Your task to perform on an android device: Open notification settings Image 0: 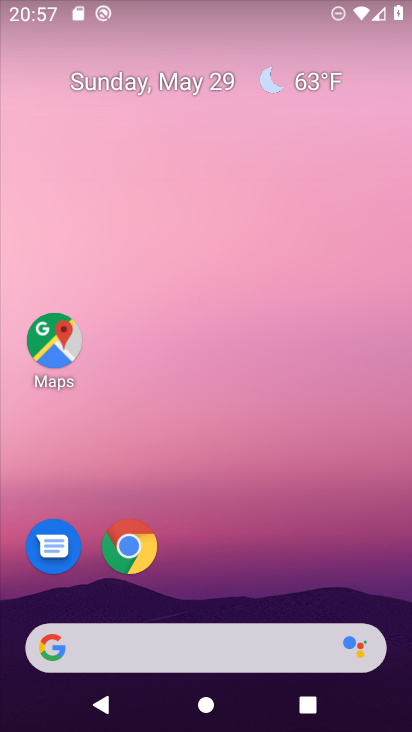
Step 0: drag from (153, 654) to (303, 89)
Your task to perform on an android device: Open notification settings Image 1: 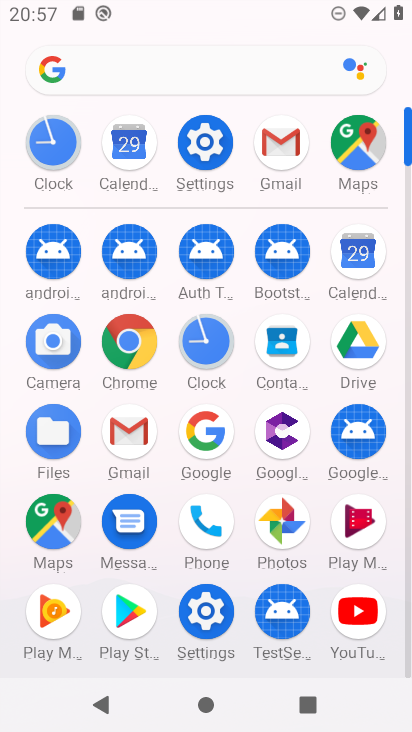
Step 1: click (204, 145)
Your task to perform on an android device: Open notification settings Image 2: 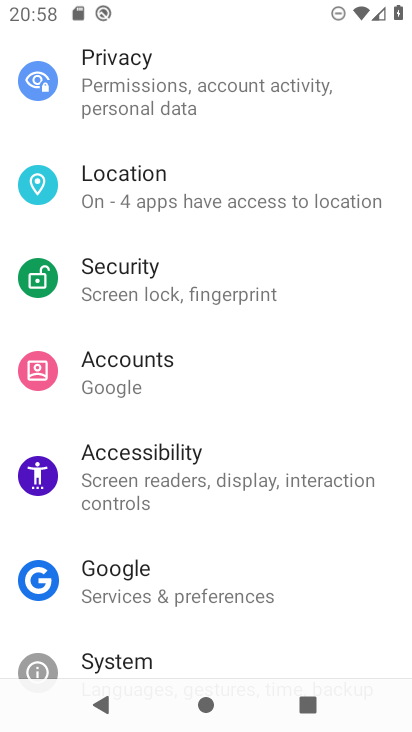
Step 2: drag from (340, 146) to (254, 524)
Your task to perform on an android device: Open notification settings Image 3: 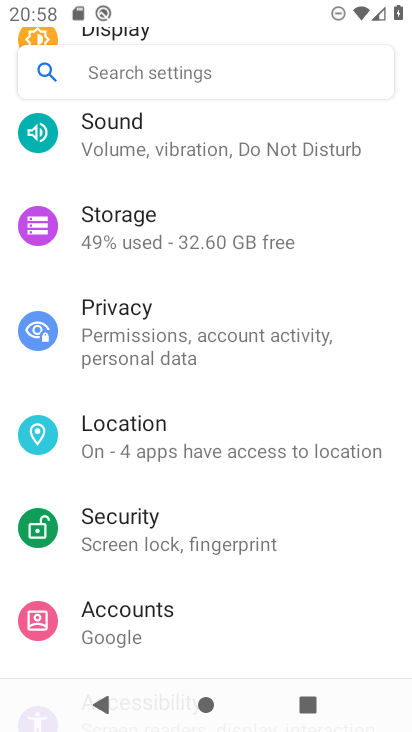
Step 3: drag from (292, 178) to (262, 620)
Your task to perform on an android device: Open notification settings Image 4: 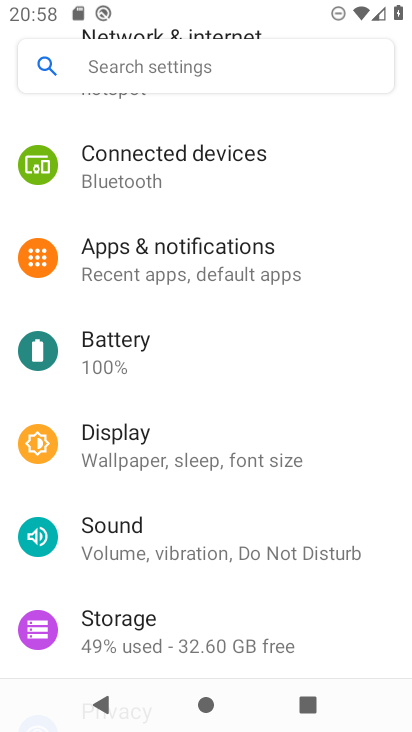
Step 4: click (210, 257)
Your task to perform on an android device: Open notification settings Image 5: 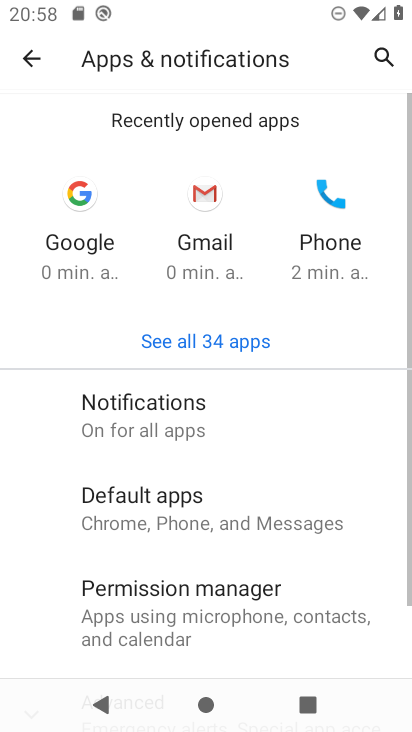
Step 5: click (186, 418)
Your task to perform on an android device: Open notification settings Image 6: 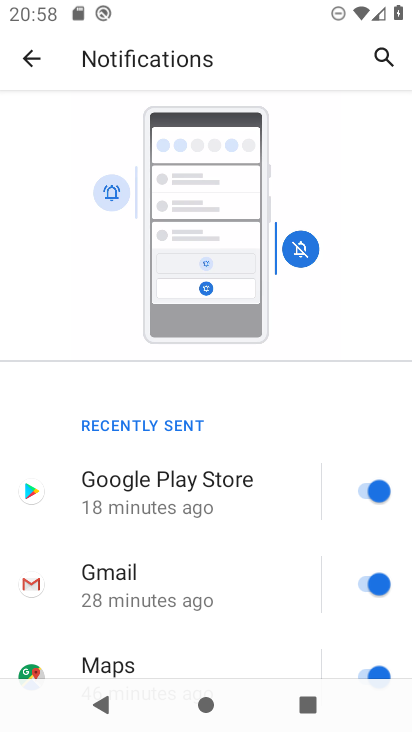
Step 6: task complete